Your task to perform on an android device: Open eBay Image 0: 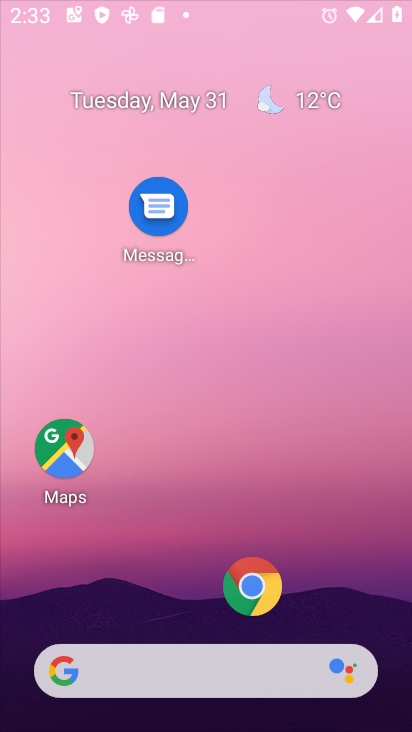
Step 0: click (172, 81)
Your task to perform on an android device: Open eBay Image 1: 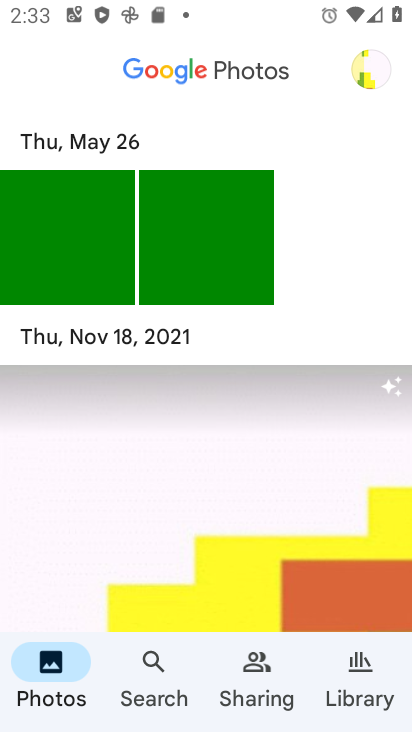
Step 1: drag from (165, 550) to (201, 103)
Your task to perform on an android device: Open eBay Image 2: 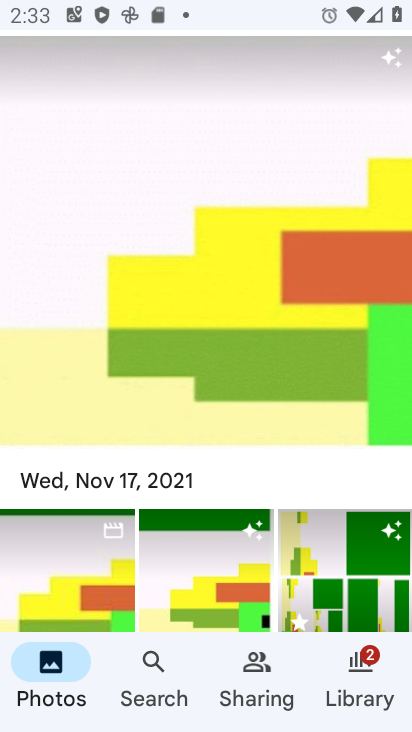
Step 2: drag from (242, 560) to (304, 156)
Your task to perform on an android device: Open eBay Image 3: 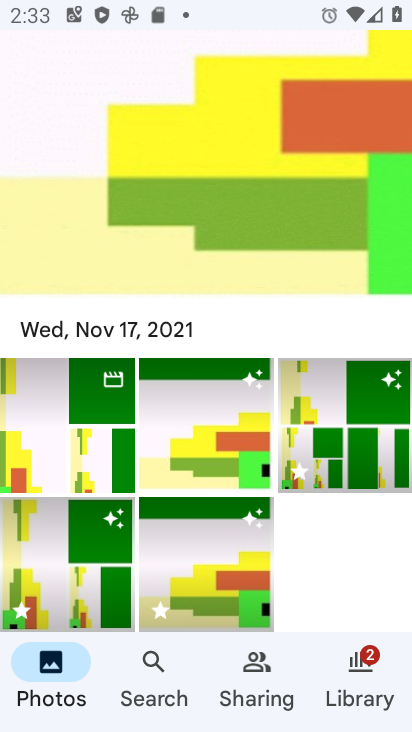
Step 3: drag from (243, 504) to (253, 89)
Your task to perform on an android device: Open eBay Image 4: 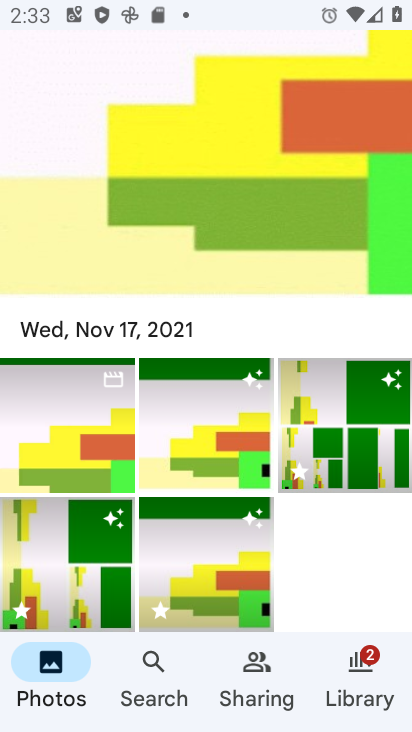
Step 4: drag from (303, 601) to (309, 212)
Your task to perform on an android device: Open eBay Image 5: 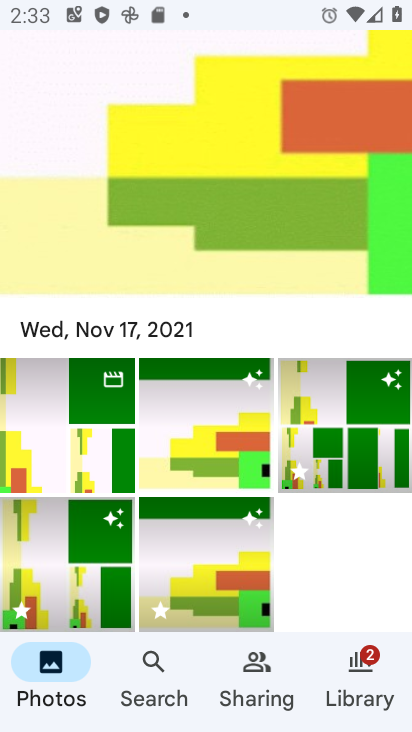
Step 5: drag from (299, 577) to (303, 233)
Your task to perform on an android device: Open eBay Image 6: 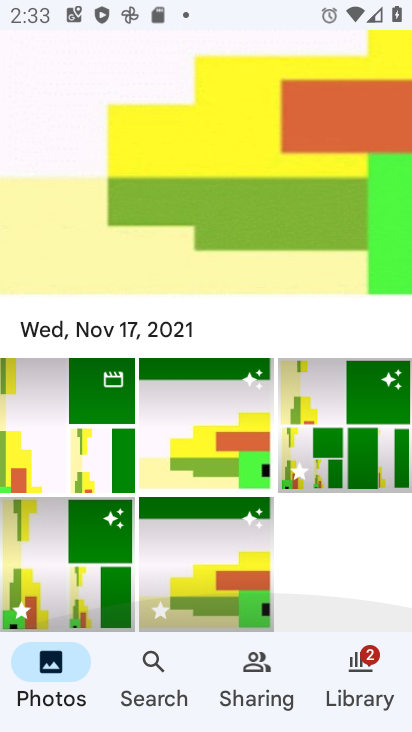
Step 6: drag from (301, 154) to (319, 729)
Your task to perform on an android device: Open eBay Image 7: 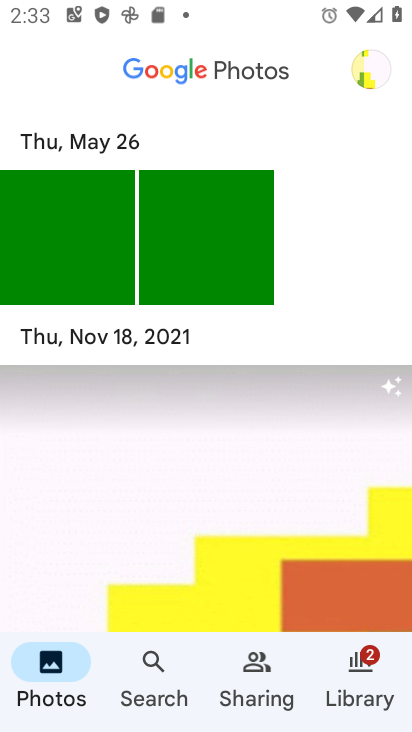
Step 7: click (369, 61)
Your task to perform on an android device: Open eBay Image 8: 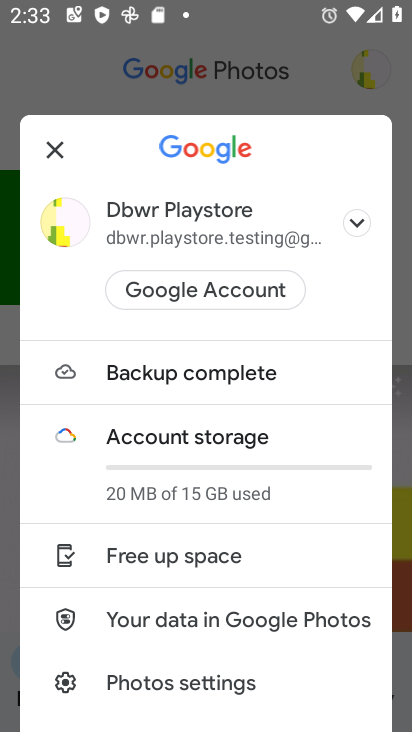
Step 8: press home button
Your task to perform on an android device: Open eBay Image 9: 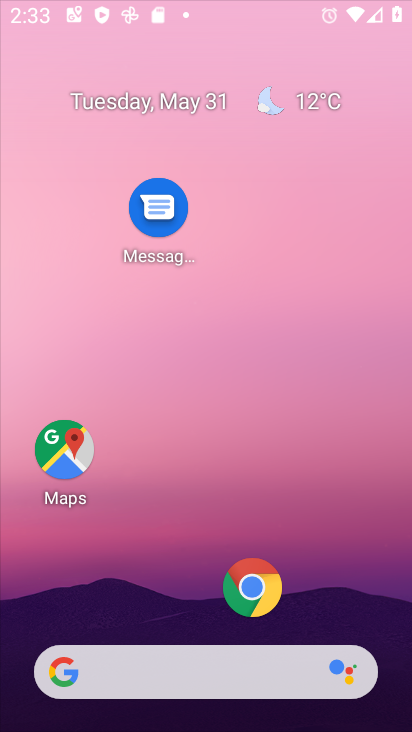
Step 9: drag from (222, 622) to (400, 35)
Your task to perform on an android device: Open eBay Image 10: 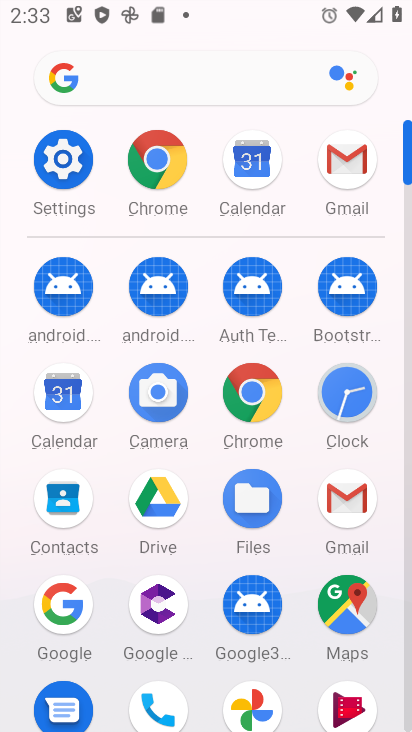
Step 10: click (157, 154)
Your task to perform on an android device: Open eBay Image 11: 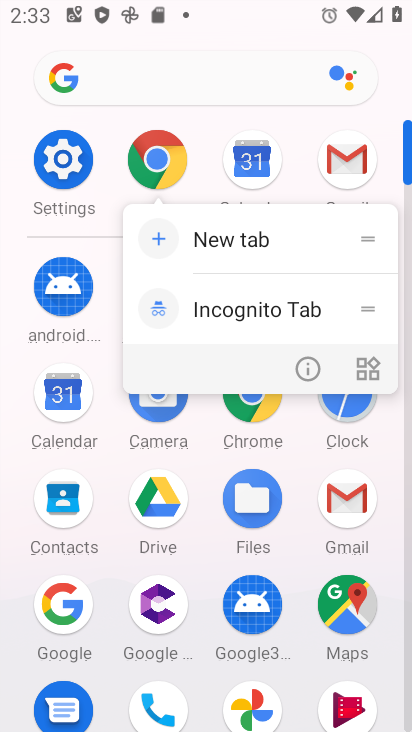
Step 11: click (211, 74)
Your task to perform on an android device: Open eBay Image 12: 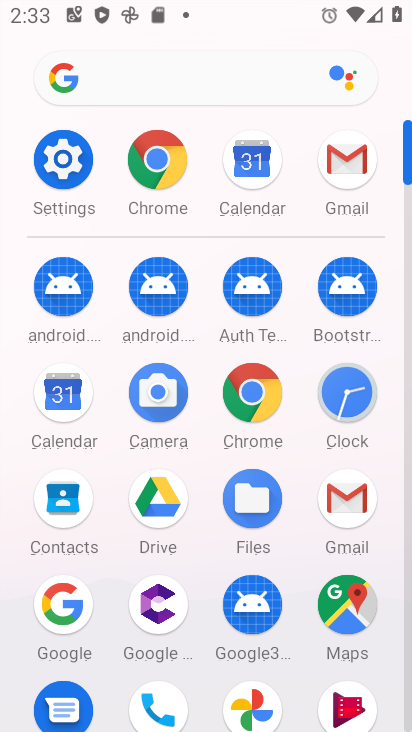
Step 12: click (192, 81)
Your task to perform on an android device: Open eBay Image 13: 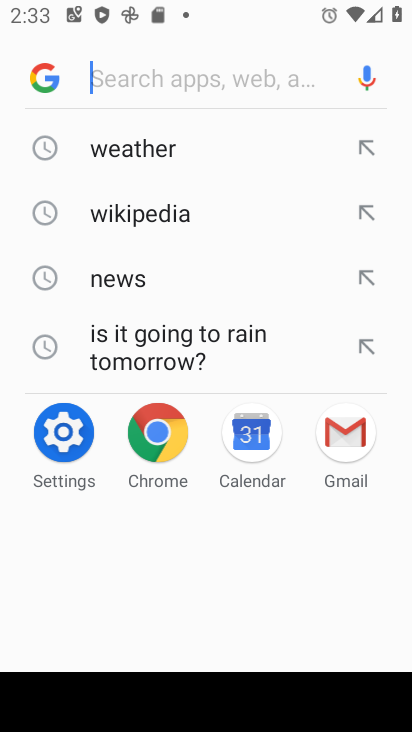
Step 13: type "eBay"
Your task to perform on an android device: Open eBay Image 14: 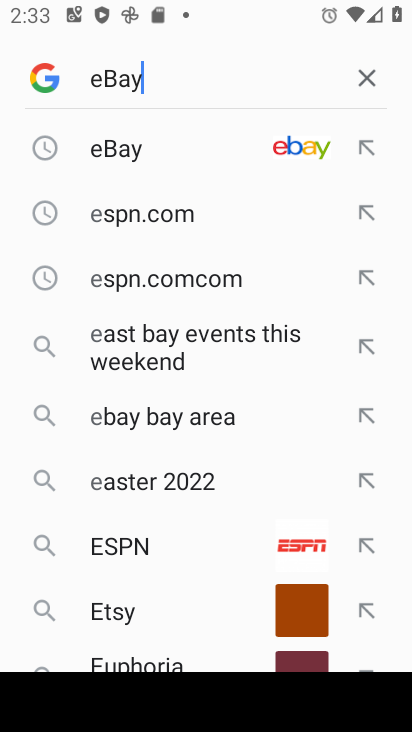
Step 14: type ""
Your task to perform on an android device: Open eBay Image 15: 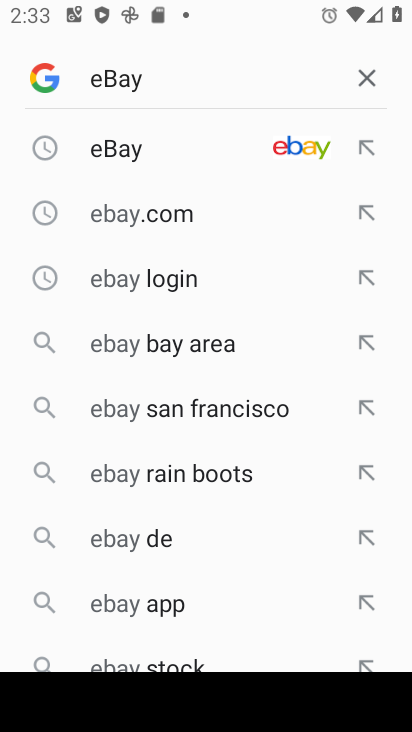
Step 15: click (116, 149)
Your task to perform on an android device: Open eBay Image 16: 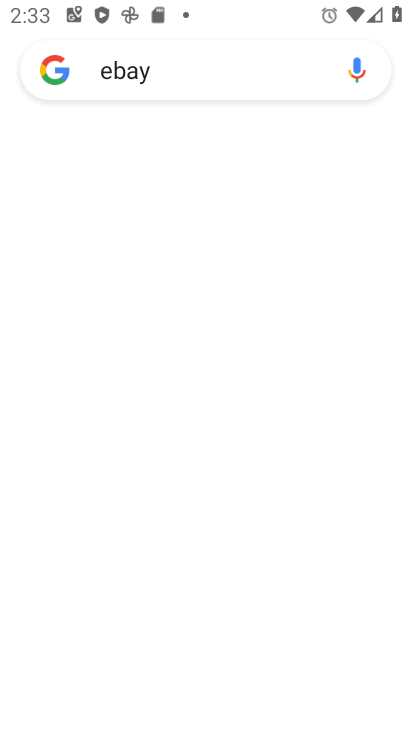
Step 16: task complete